Your task to perform on an android device: install app "HBO Max: Stream TV & Movies" Image 0: 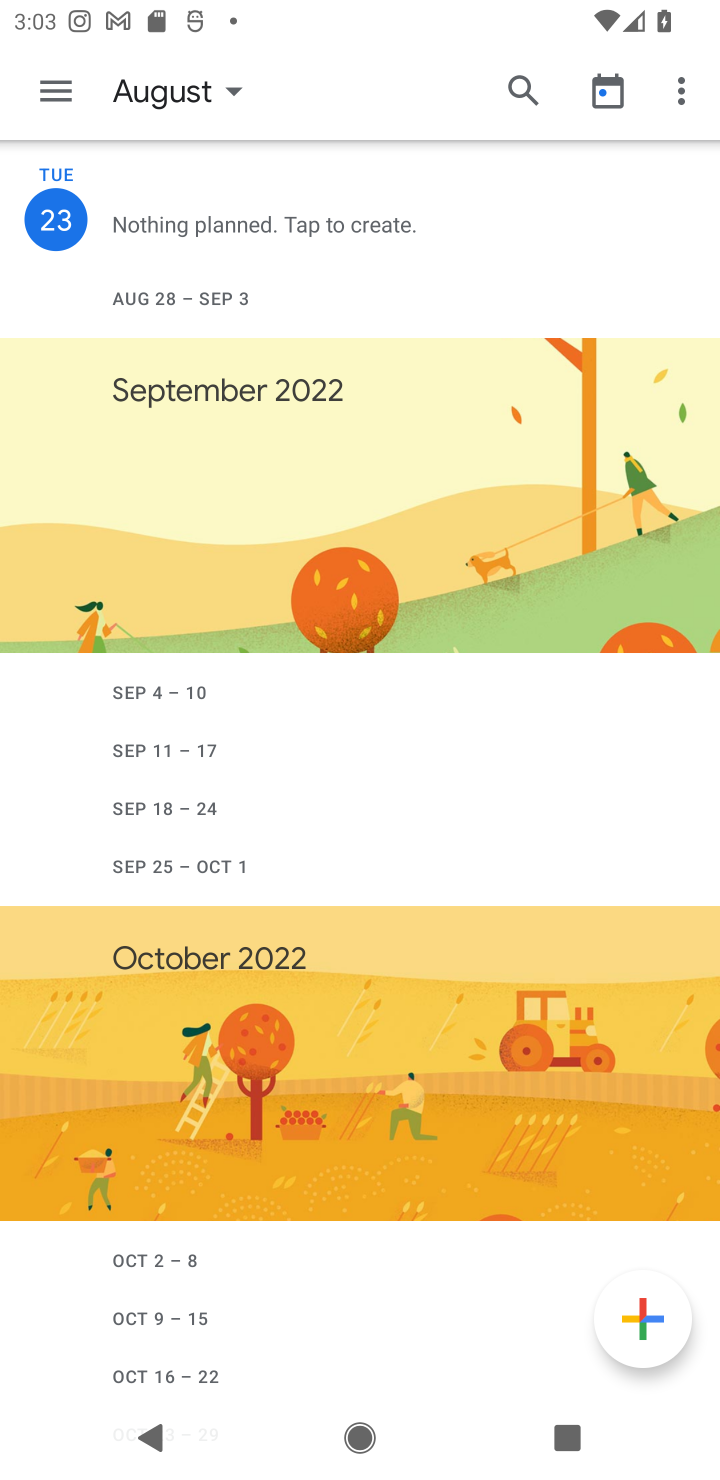
Step 0: press home button
Your task to perform on an android device: install app "HBO Max: Stream TV & Movies" Image 1: 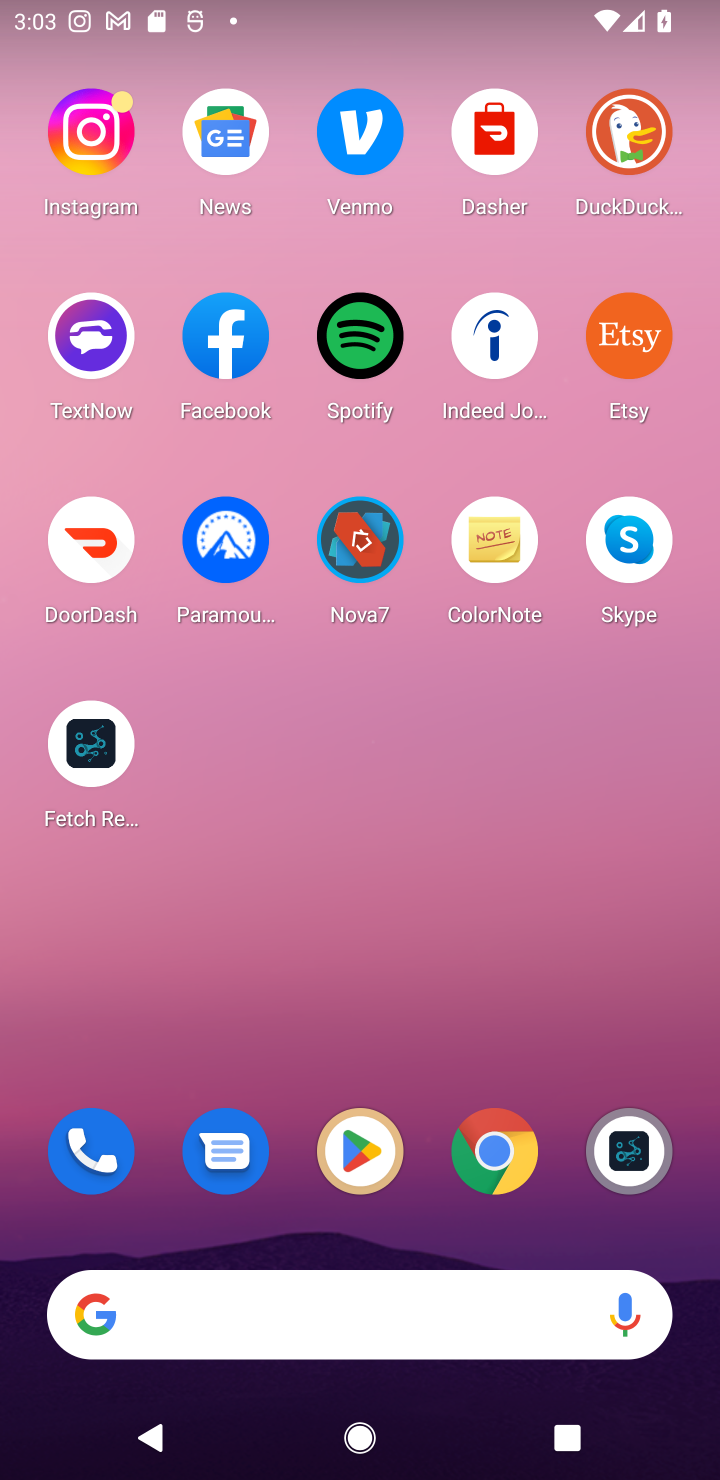
Step 1: click (361, 1153)
Your task to perform on an android device: install app "HBO Max: Stream TV & Movies" Image 2: 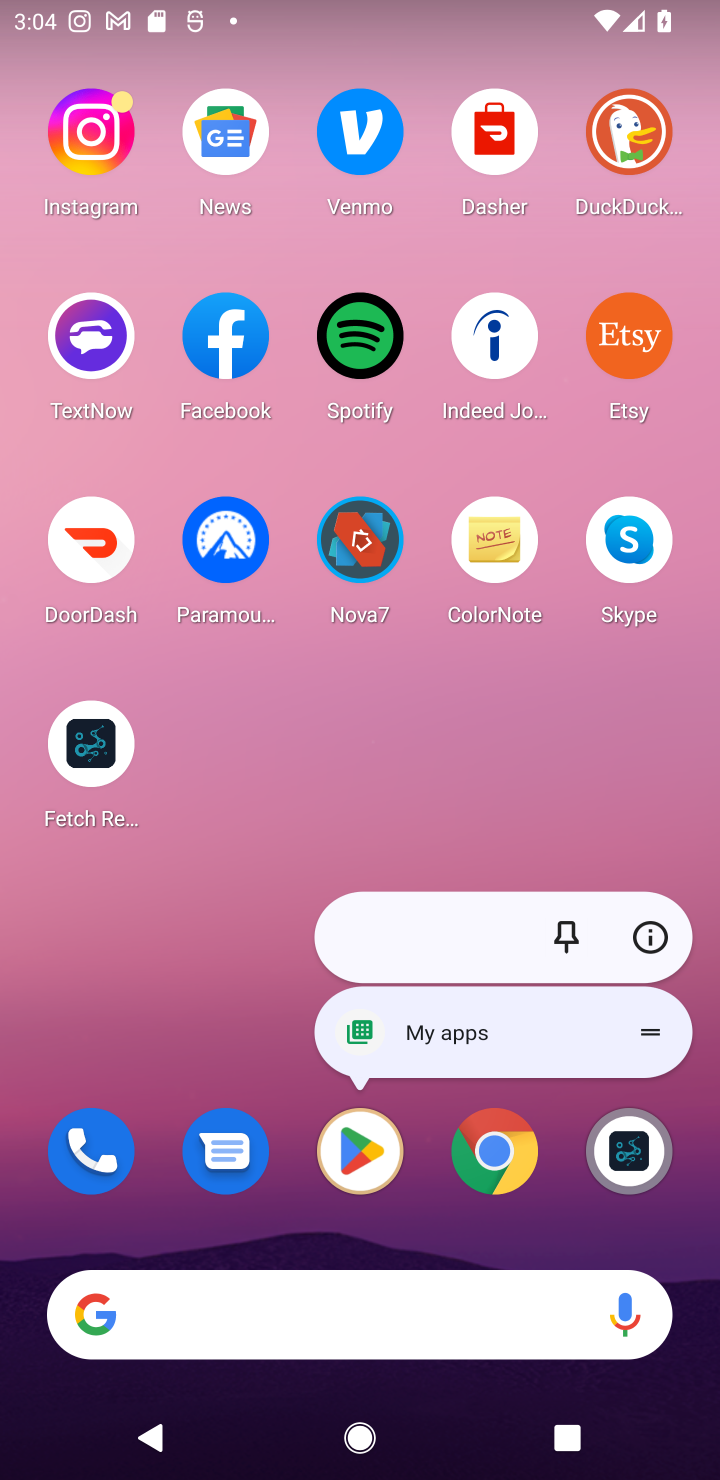
Step 2: click (361, 1153)
Your task to perform on an android device: install app "HBO Max: Stream TV & Movies" Image 3: 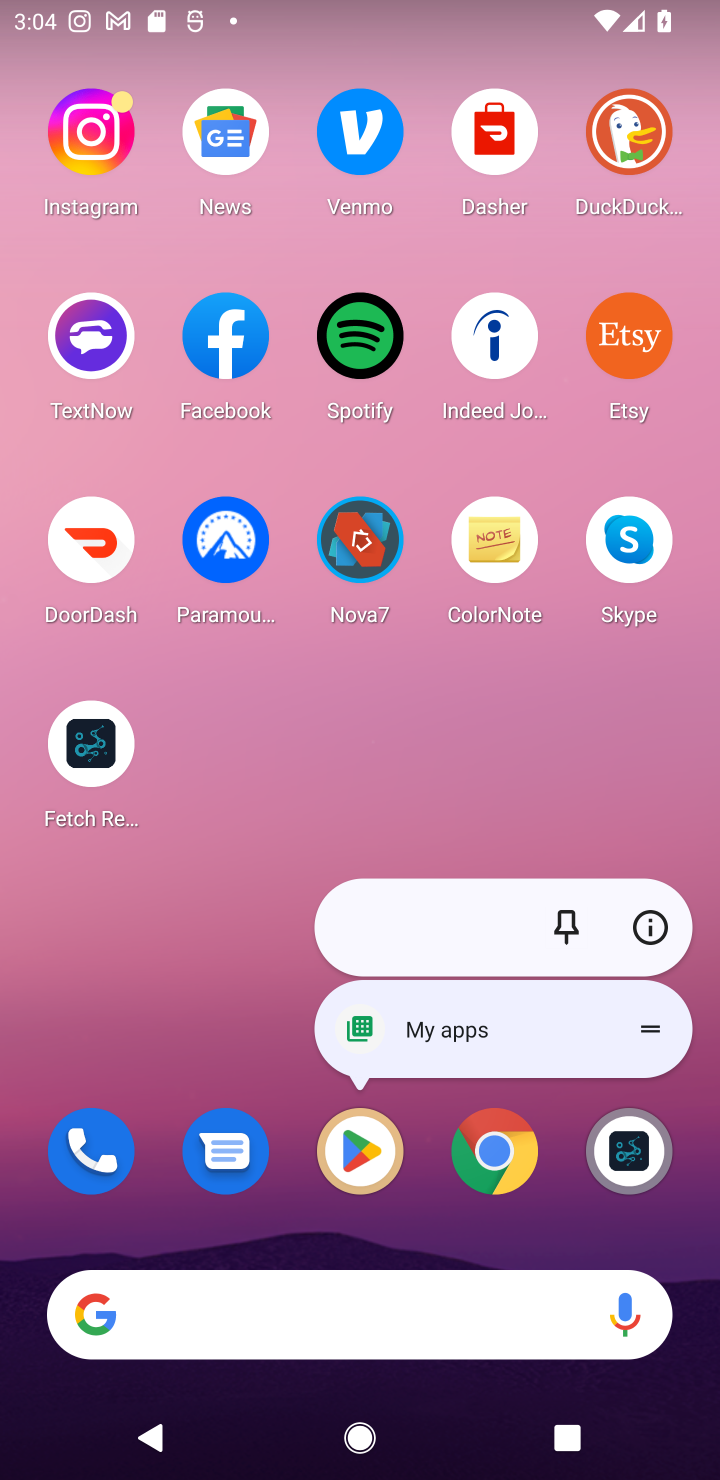
Step 3: click (361, 1153)
Your task to perform on an android device: install app "HBO Max: Stream TV & Movies" Image 4: 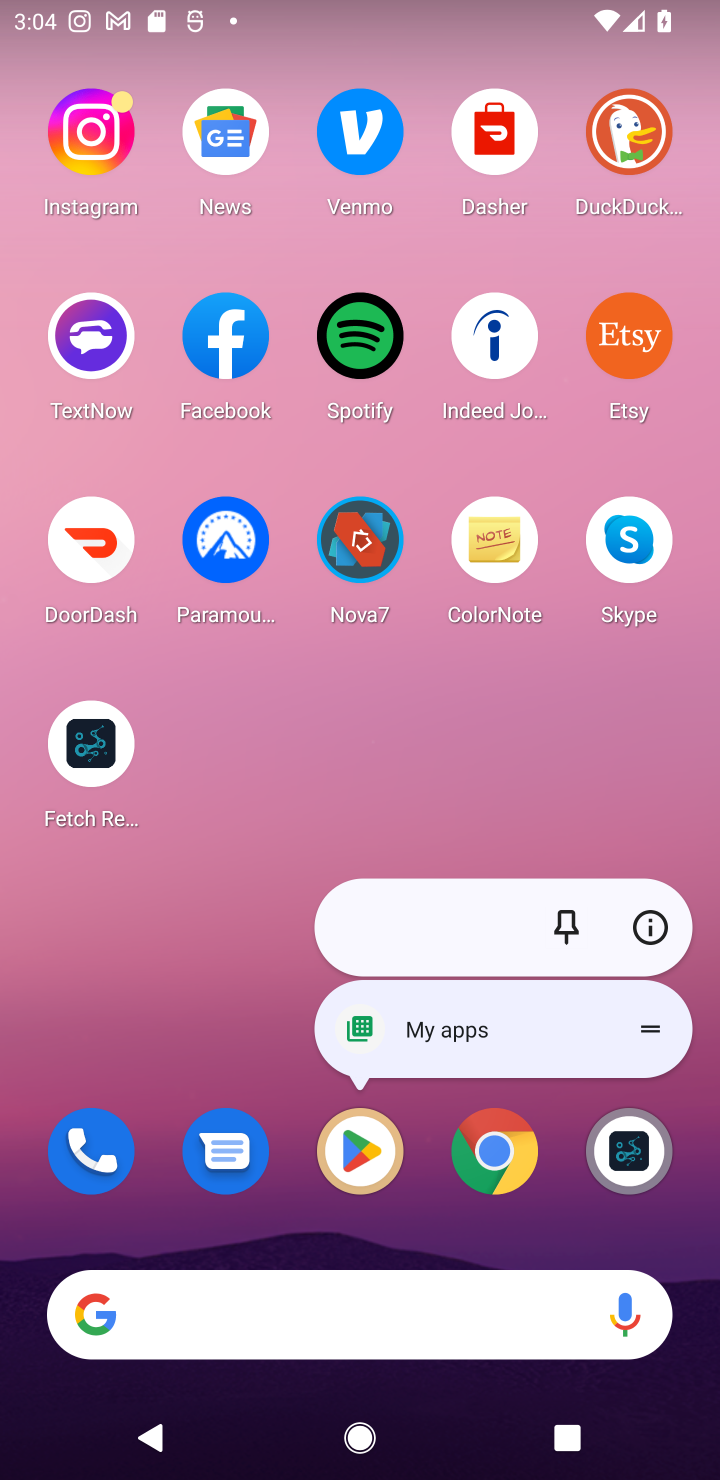
Step 4: click (361, 1153)
Your task to perform on an android device: install app "HBO Max: Stream TV & Movies" Image 5: 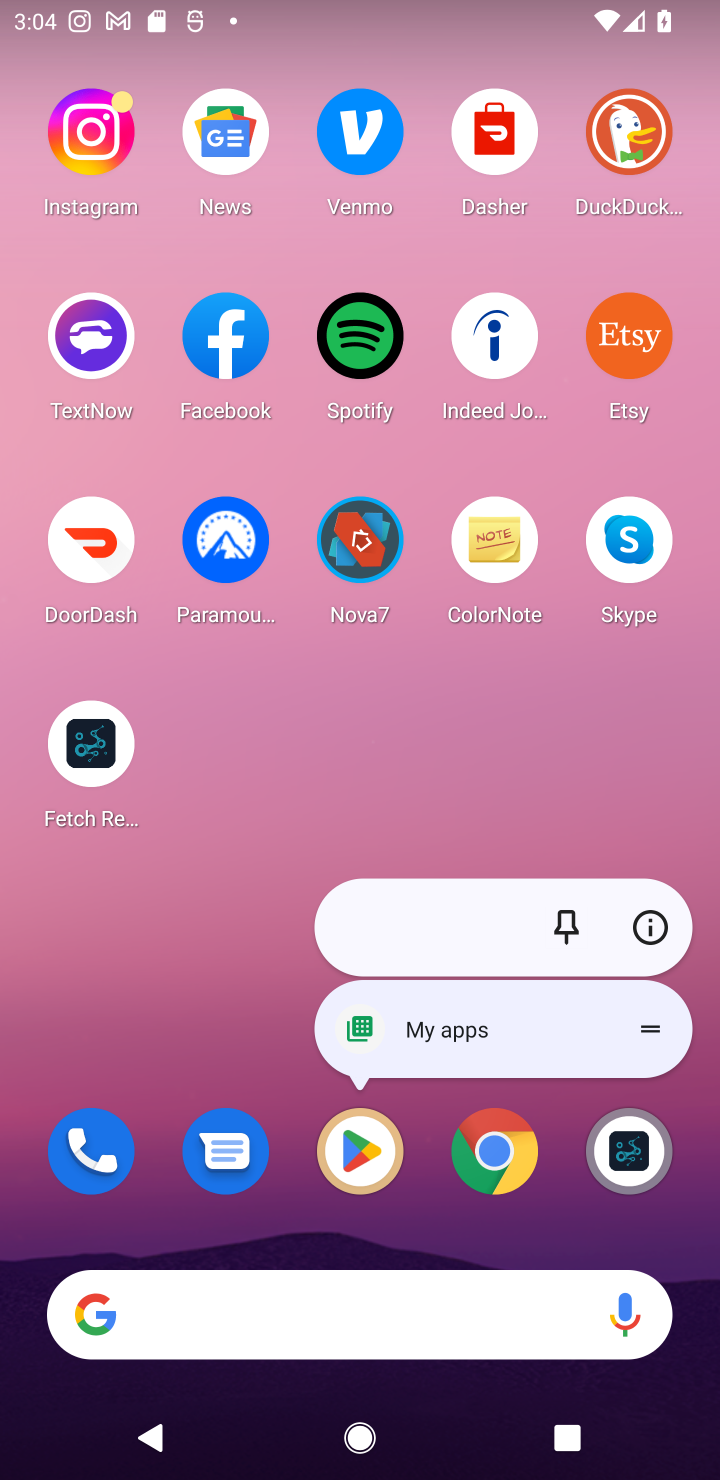
Step 5: click (361, 1151)
Your task to perform on an android device: install app "HBO Max: Stream TV & Movies" Image 6: 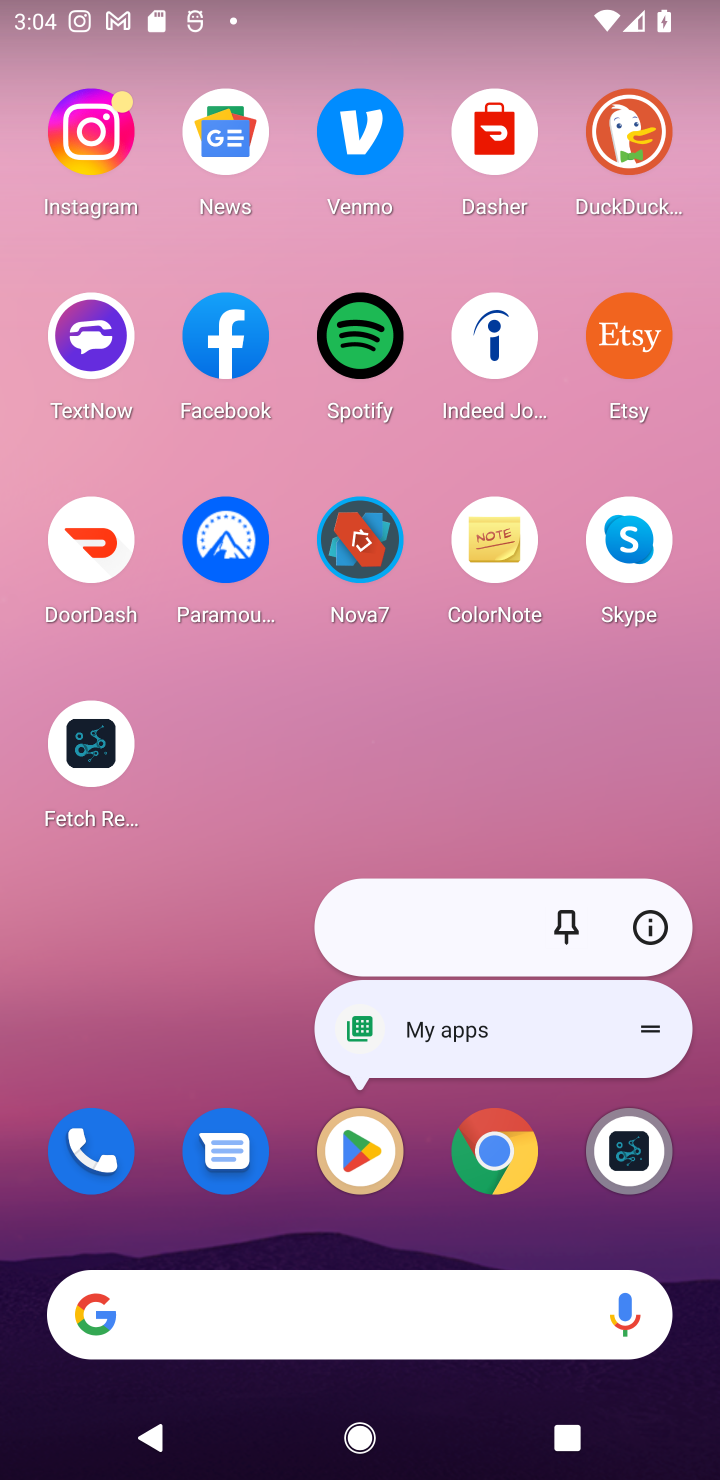
Step 6: click (362, 1175)
Your task to perform on an android device: install app "HBO Max: Stream TV & Movies" Image 7: 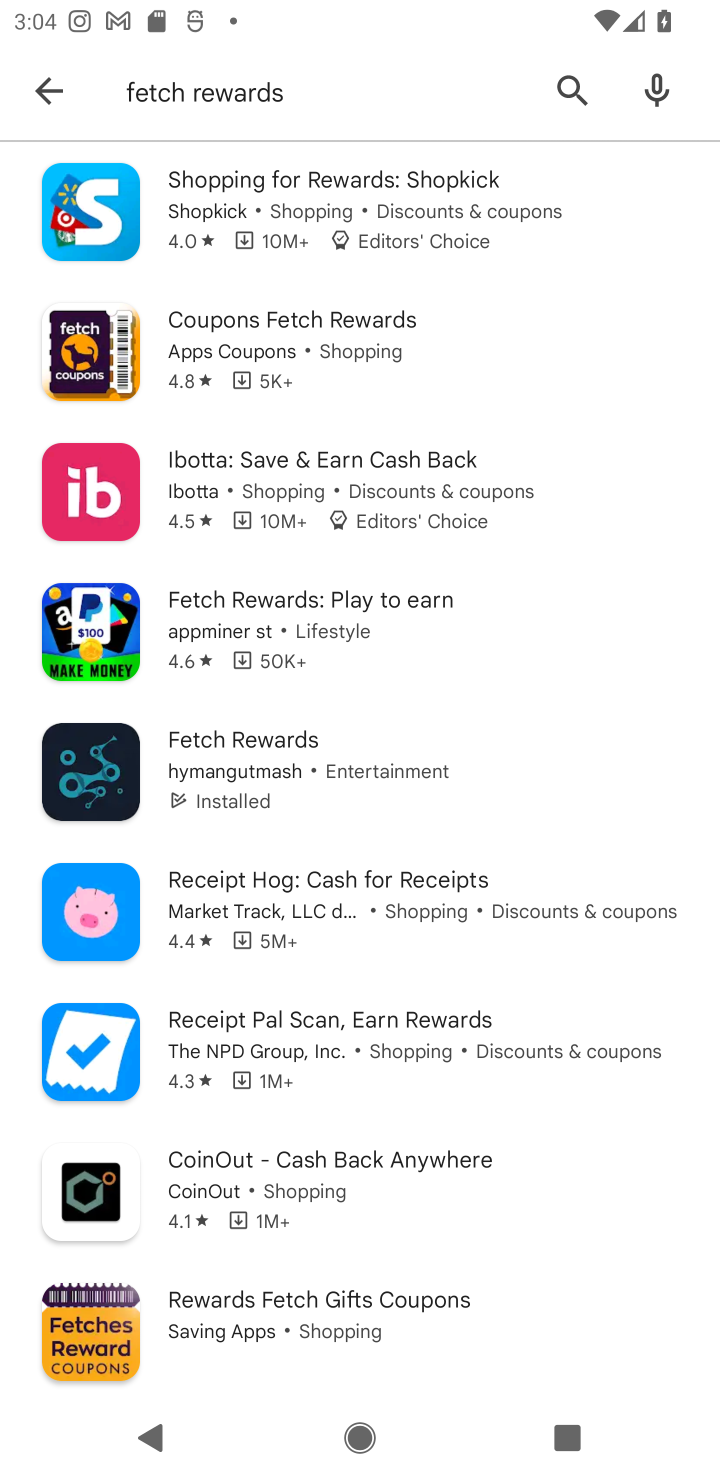
Step 7: click (564, 94)
Your task to perform on an android device: install app "HBO Max: Stream TV & Movies" Image 8: 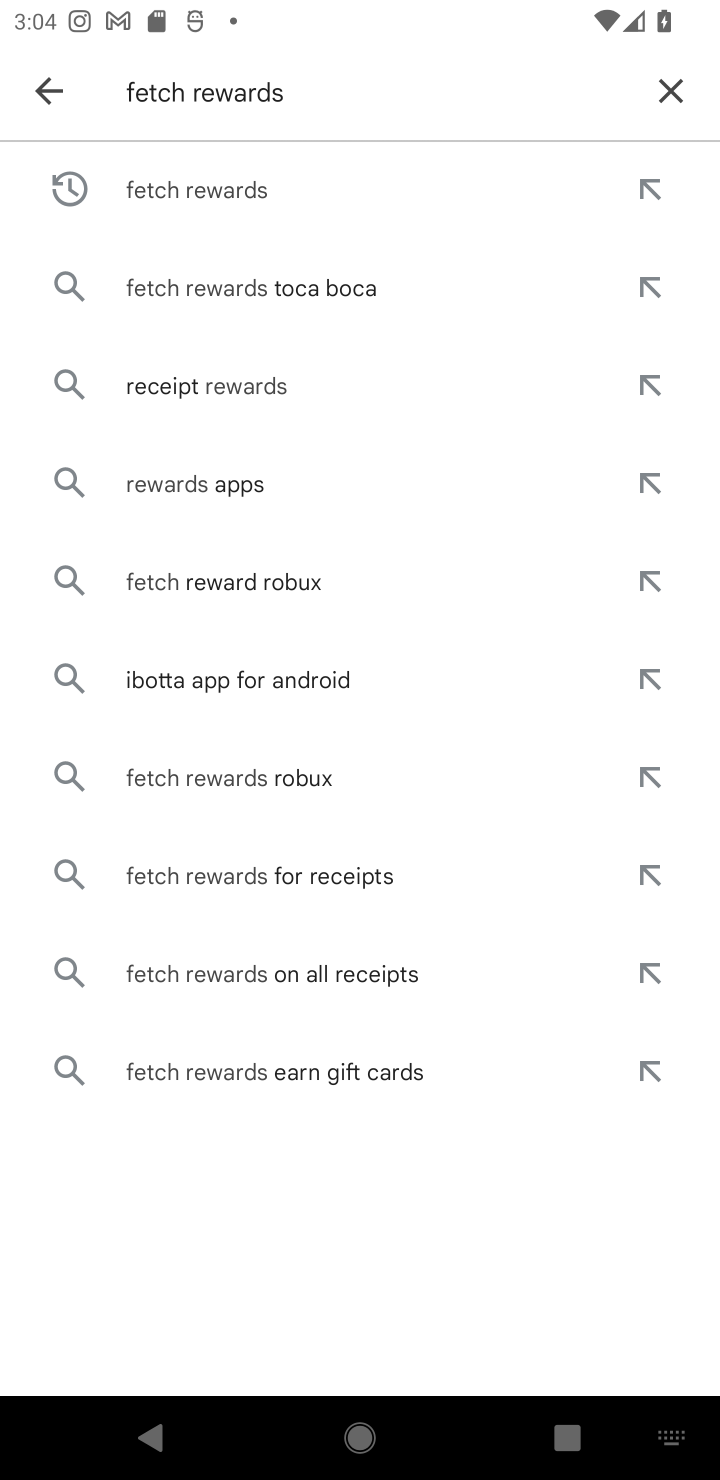
Step 8: click (668, 90)
Your task to perform on an android device: install app "HBO Max: Stream TV & Movies" Image 9: 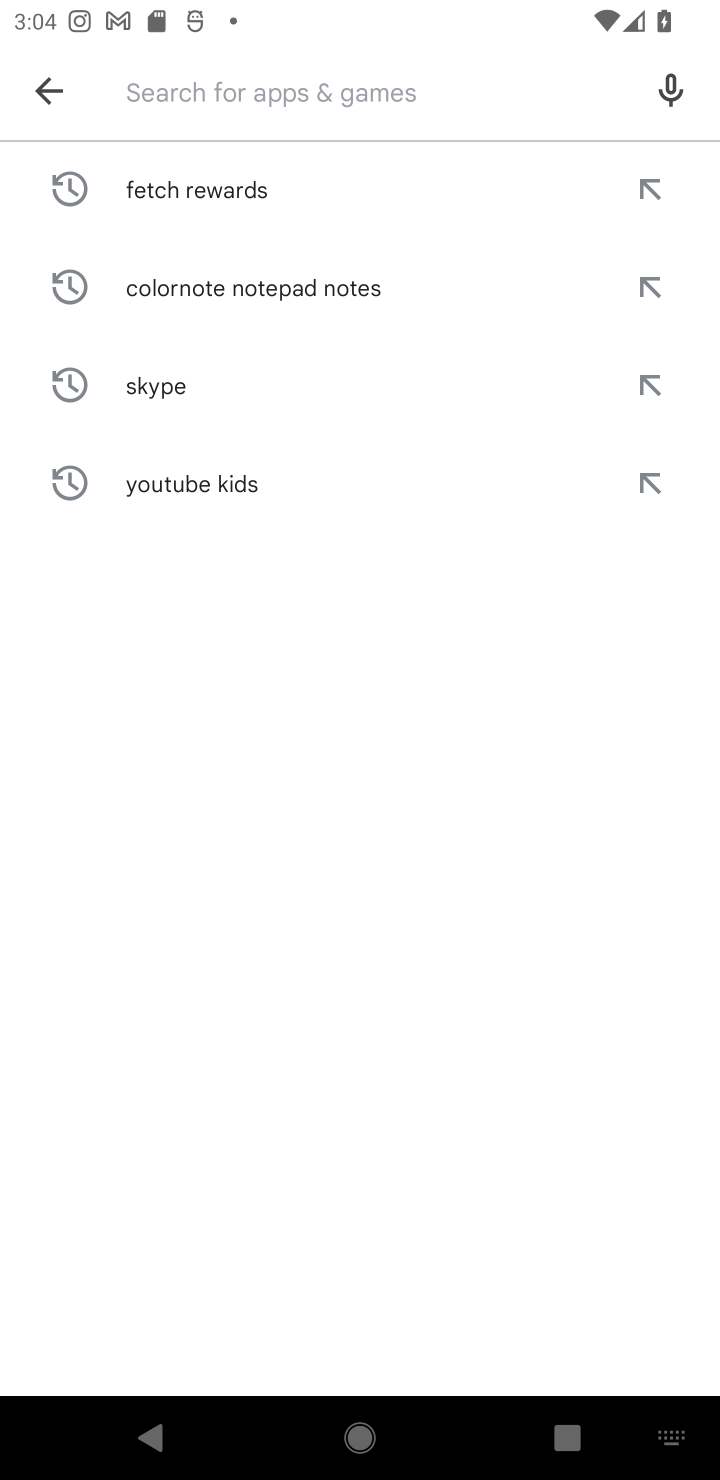
Step 9: type "HBO Max: Stream TV & Movies"
Your task to perform on an android device: install app "HBO Max: Stream TV & Movies" Image 10: 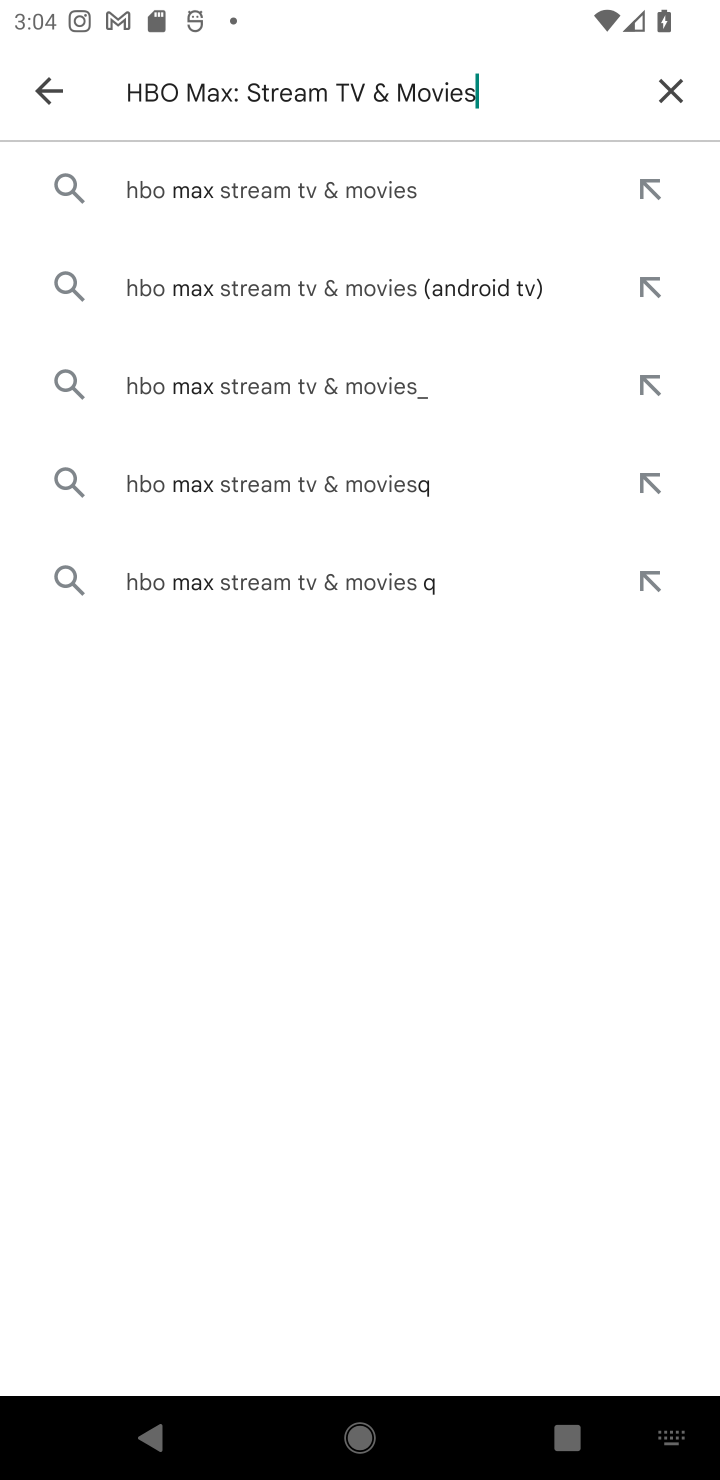
Step 10: click (356, 202)
Your task to perform on an android device: install app "HBO Max: Stream TV & Movies" Image 11: 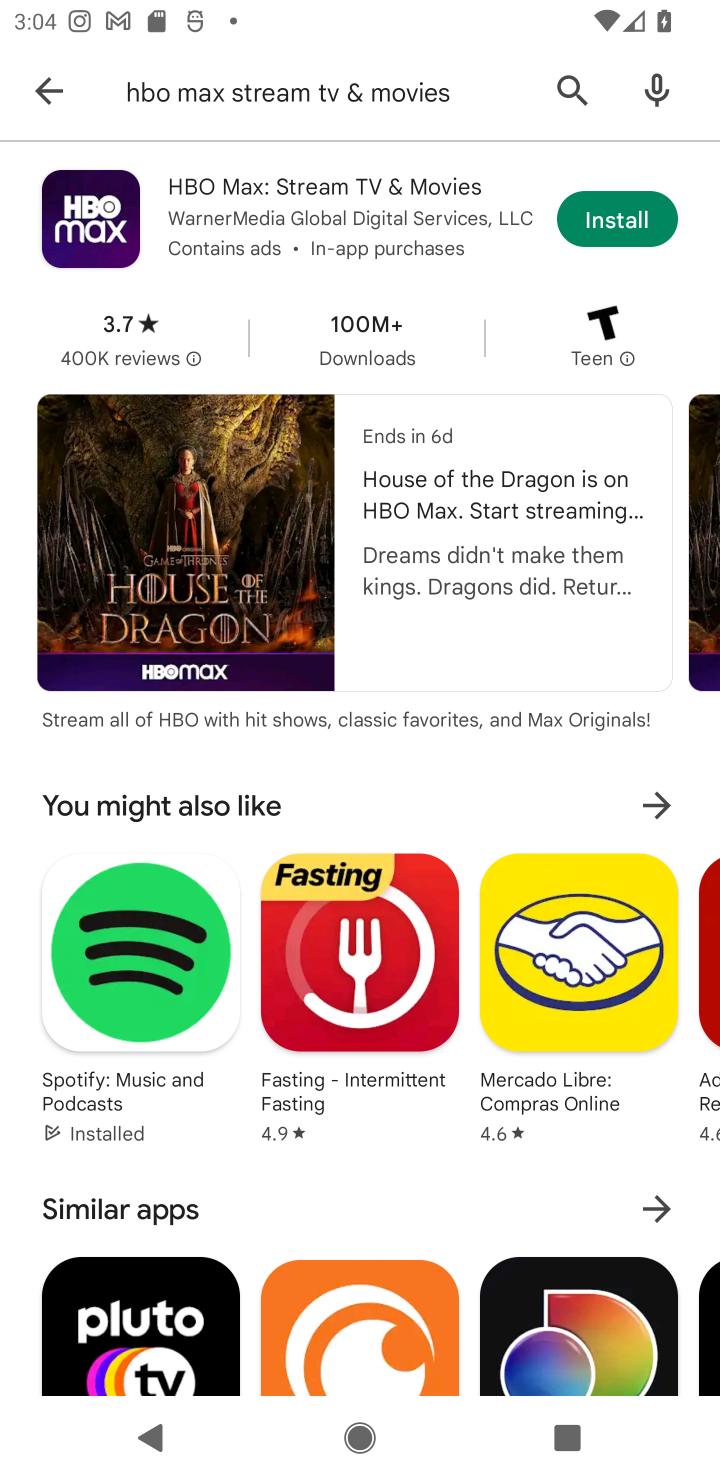
Step 11: click (638, 225)
Your task to perform on an android device: install app "HBO Max: Stream TV & Movies" Image 12: 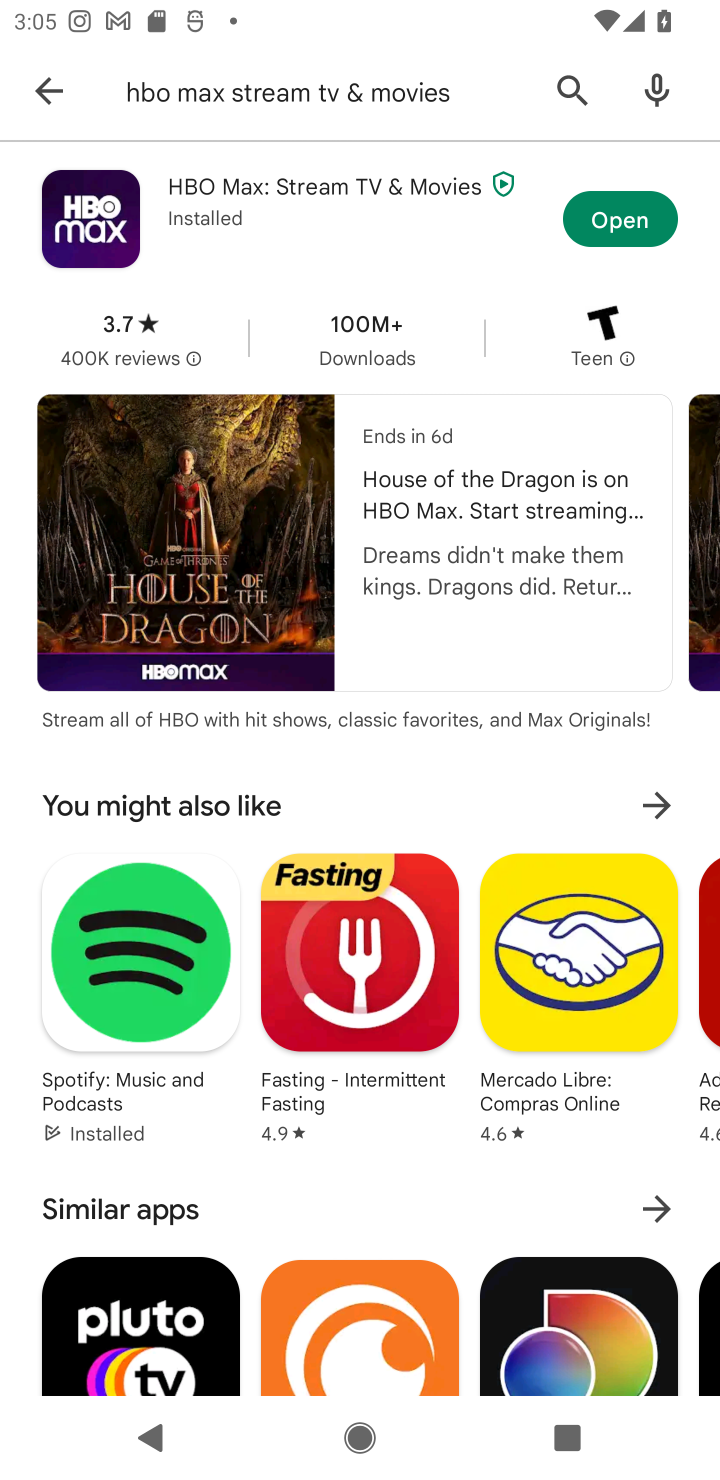
Step 12: task complete